Your task to perform on an android device: set the stopwatch Image 0: 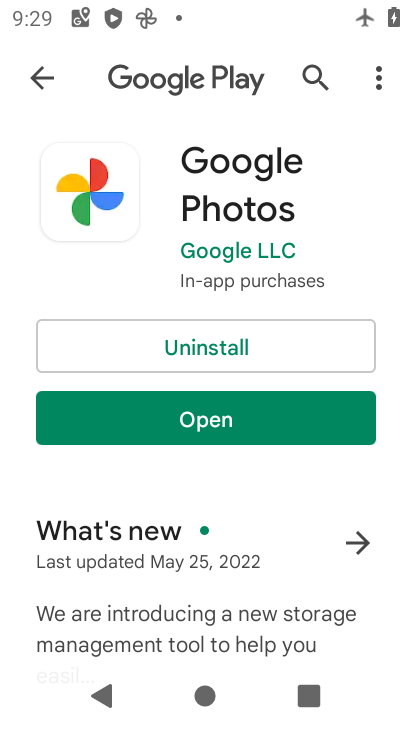
Step 0: press home button
Your task to perform on an android device: set the stopwatch Image 1: 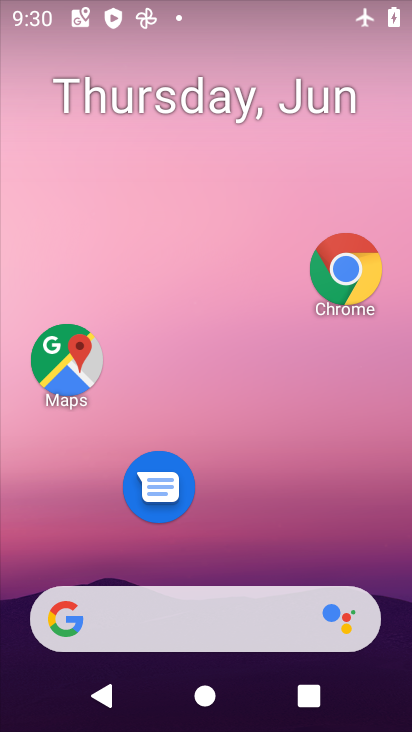
Step 1: drag from (220, 515) to (206, 104)
Your task to perform on an android device: set the stopwatch Image 2: 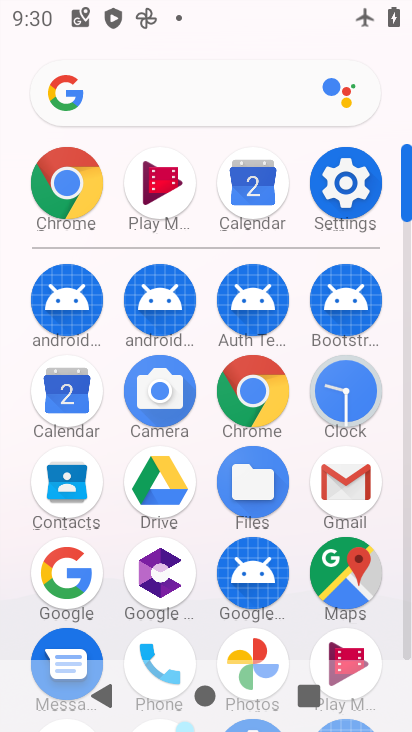
Step 2: drag from (304, 529) to (306, 200)
Your task to perform on an android device: set the stopwatch Image 3: 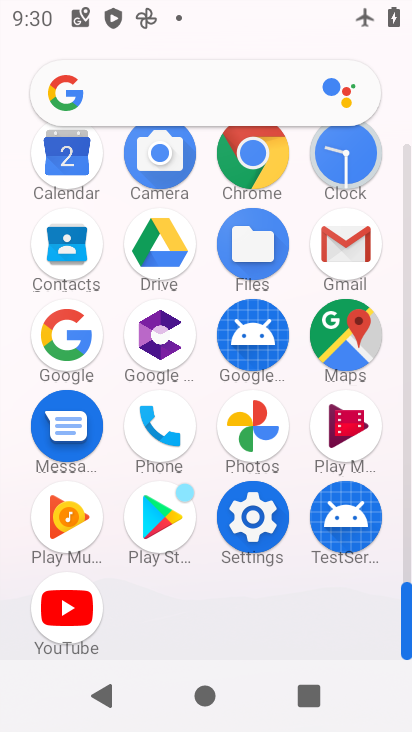
Step 3: click (342, 179)
Your task to perform on an android device: set the stopwatch Image 4: 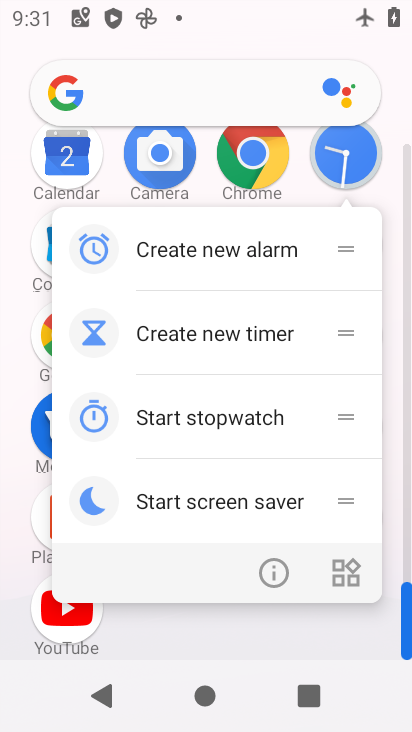
Step 4: click (277, 568)
Your task to perform on an android device: set the stopwatch Image 5: 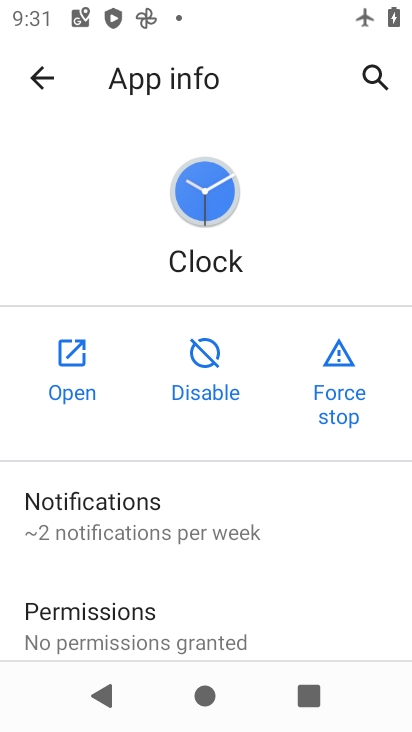
Step 5: click (74, 368)
Your task to perform on an android device: set the stopwatch Image 6: 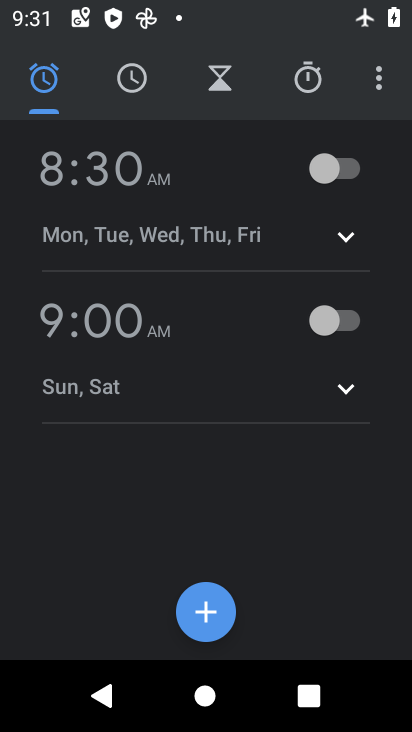
Step 6: click (310, 87)
Your task to perform on an android device: set the stopwatch Image 7: 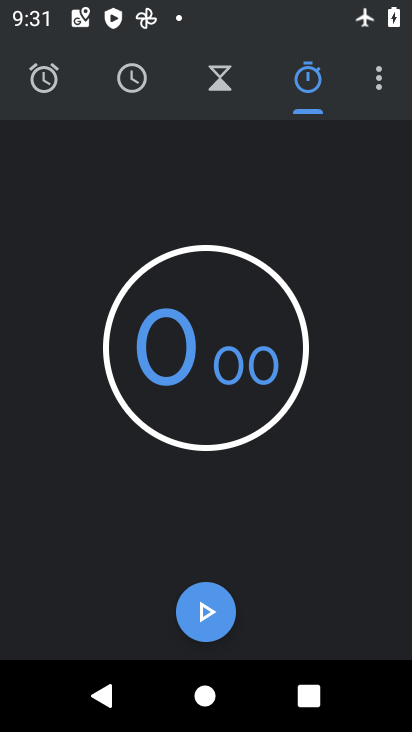
Step 7: drag from (289, 463) to (320, 239)
Your task to perform on an android device: set the stopwatch Image 8: 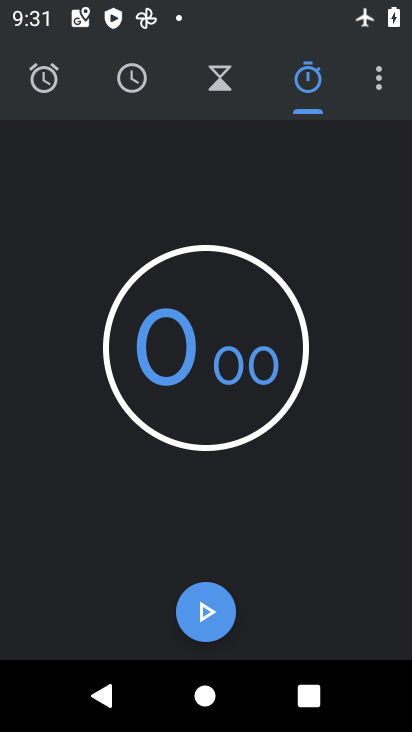
Step 8: click (223, 605)
Your task to perform on an android device: set the stopwatch Image 9: 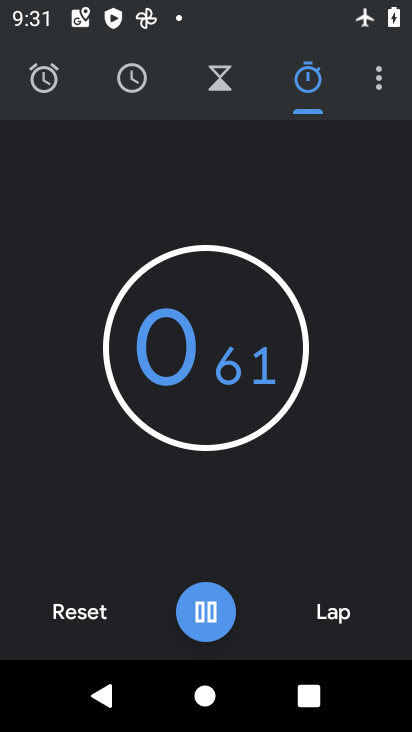
Step 9: task complete